Your task to perform on an android device: Go to eBay Image 0: 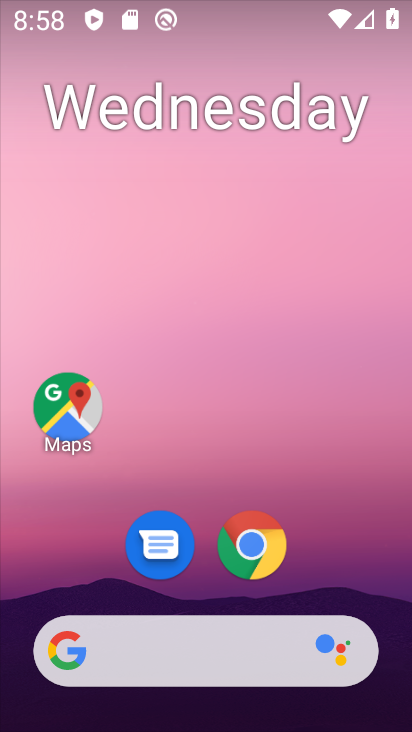
Step 0: click (260, 533)
Your task to perform on an android device: Go to eBay Image 1: 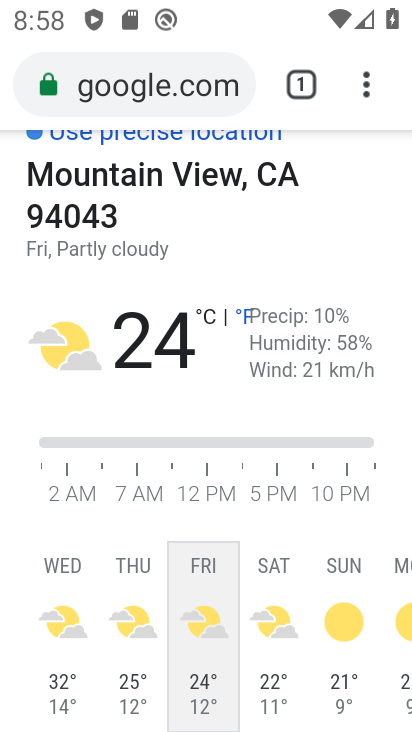
Step 1: click (298, 84)
Your task to perform on an android device: Go to eBay Image 2: 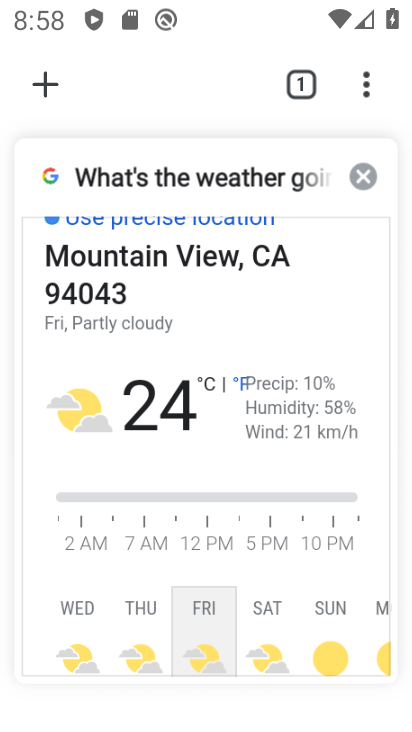
Step 2: click (48, 82)
Your task to perform on an android device: Go to eBay Image 3: 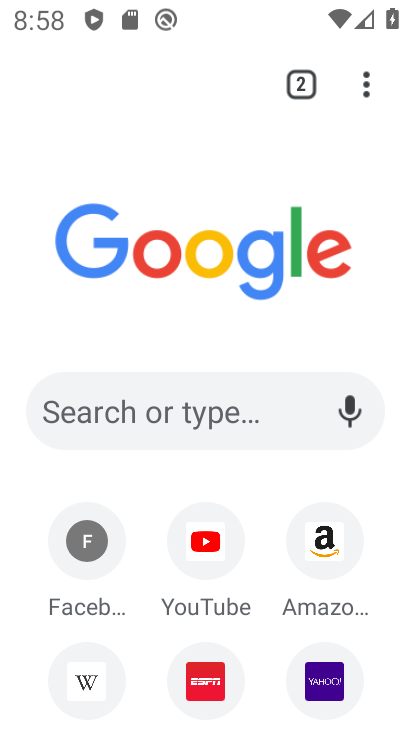
Step 3: click (248, 425)
Your task to perform on an android device: Go to eBay Image 4: 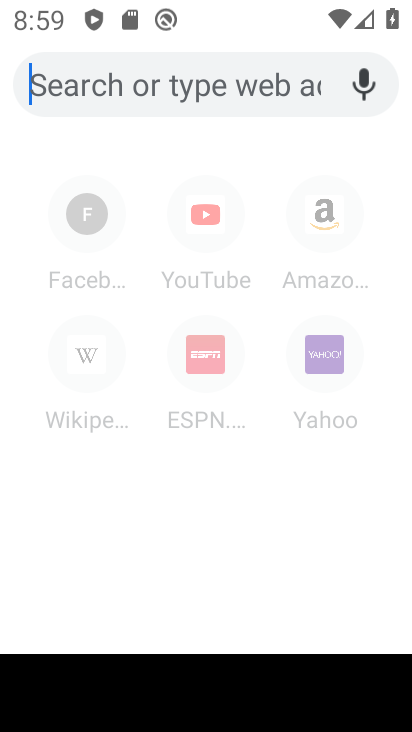
Step 4: type "ebay"
Your task to perform on an android device: Go to eBay Image 5: 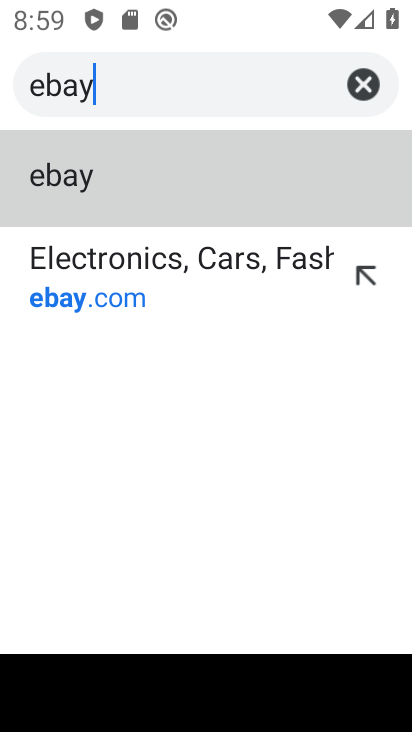
Step 5: click (116, 295)
Your task to perform on an android device: Go to eBay Image 6: 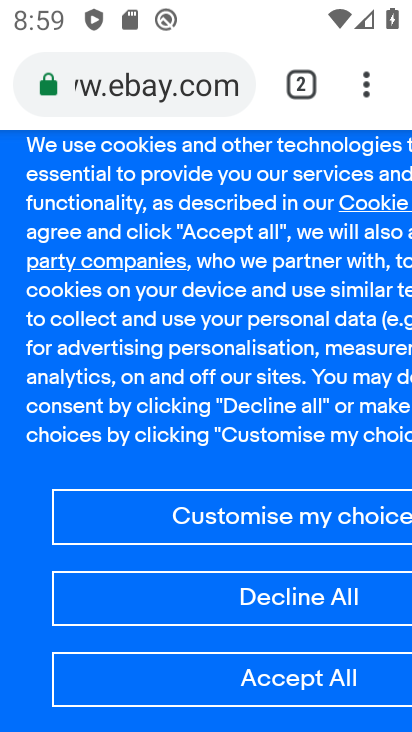
Step 6: task complete